Your task to perform on an android device: change your default location settings in chrome Image 0: 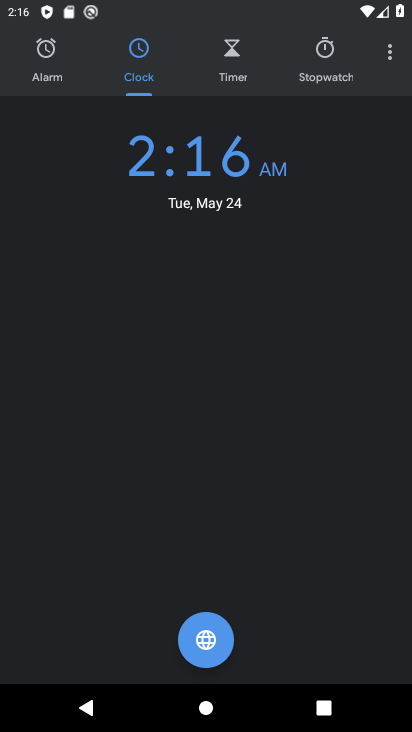
Step 0: press back button
Your task to perform on an android device: change your default location settings in chrome Image 1: 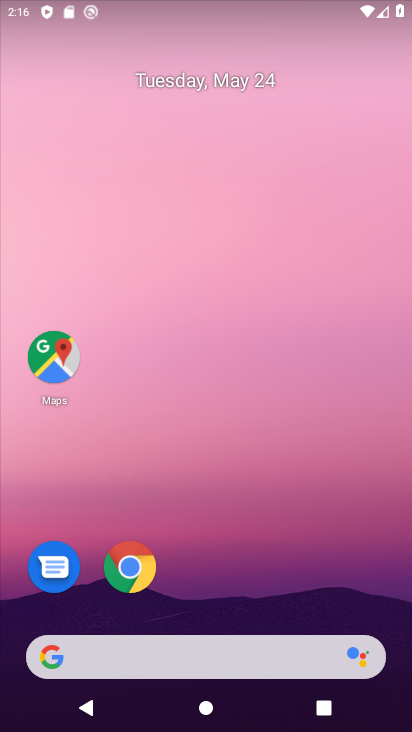
Step 1: click (128, 562)
Your task to perform on an android device: change your default location settings in chrome Image 2: 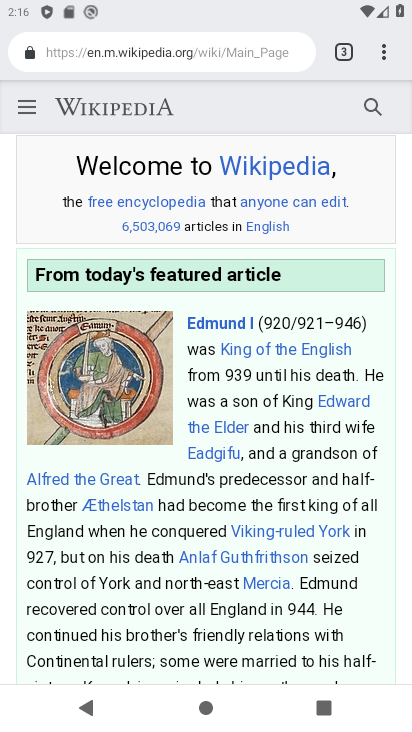
Step 2: drag from (383, 57) to (204, 633)
Your task to perform on an android device: change your default location settings in chrome Image 3: 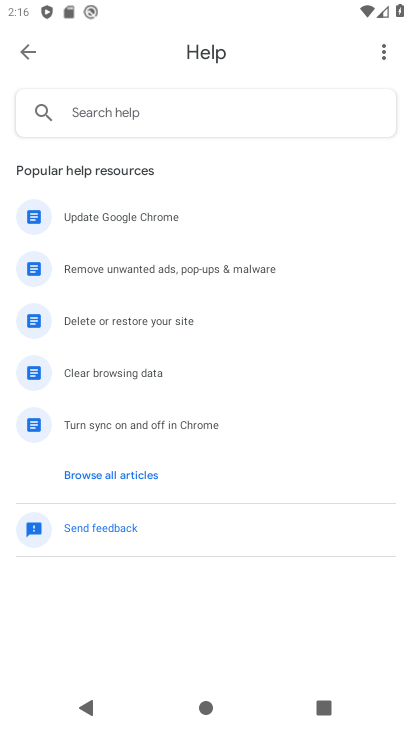
Step 3: press back button
Your task to perform on an android device: change your default location settings in chrome Image 4: 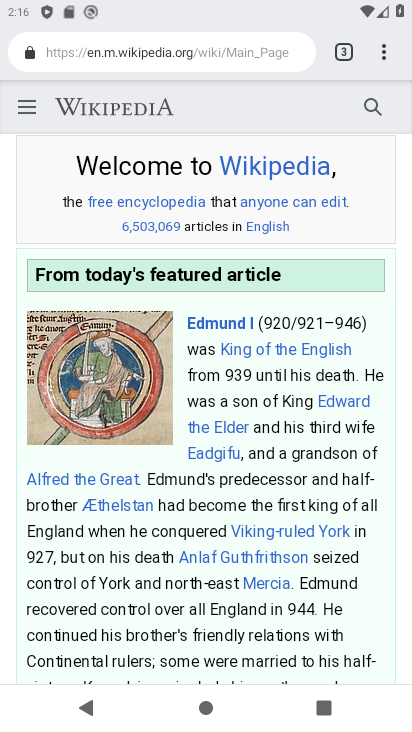
Step 4: drag from (381, 47) to (207, 613)
Your task to perform on an android device: change your default location settings in chrome Image 5: 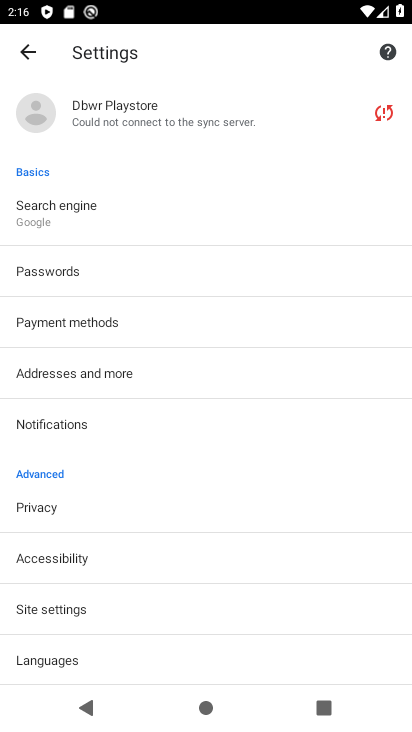
Step 5: drag from (128, 606) to (277, 67)
Your task to perform on an android device: change your default location settings in chrome Image 6: 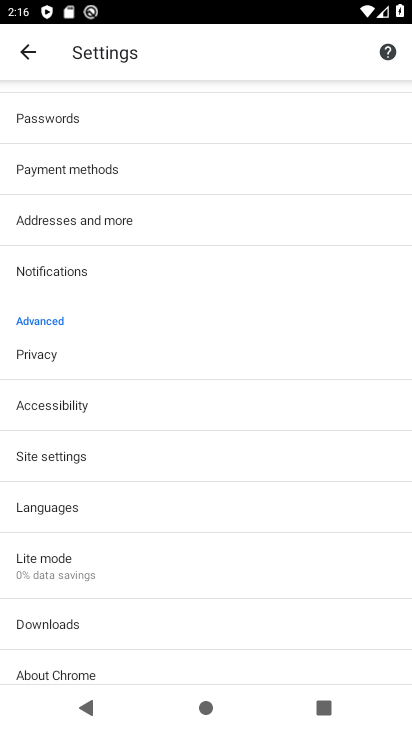
Step 6: click (67, 469)
Your task to perform on an android device: change your default location settings in chrome Image 7: 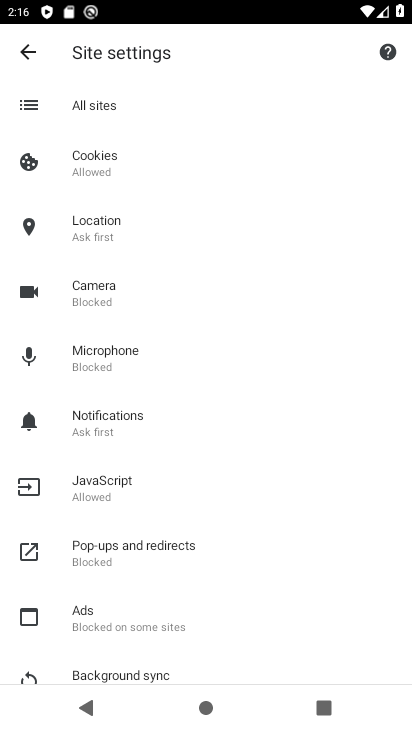
Step 7: click (100, 215)
Your task to perform on an android device: change your default location settings in chrome Image 8: 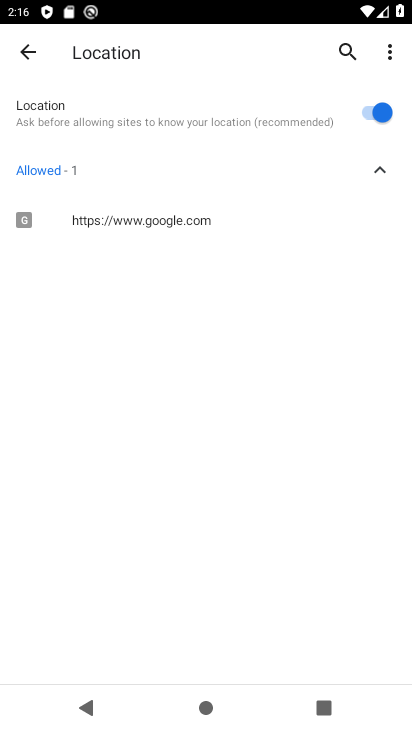
Step 8: click (375, 113)
Your task to perform on an android device: change your default location settings in chrome Image 9: 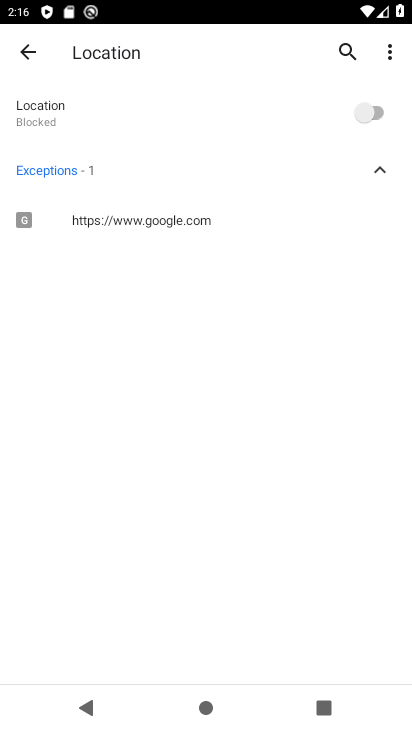
Step 9: task complete